Your task to perform on an android device: Search for hotels in San Francisco Image 0: 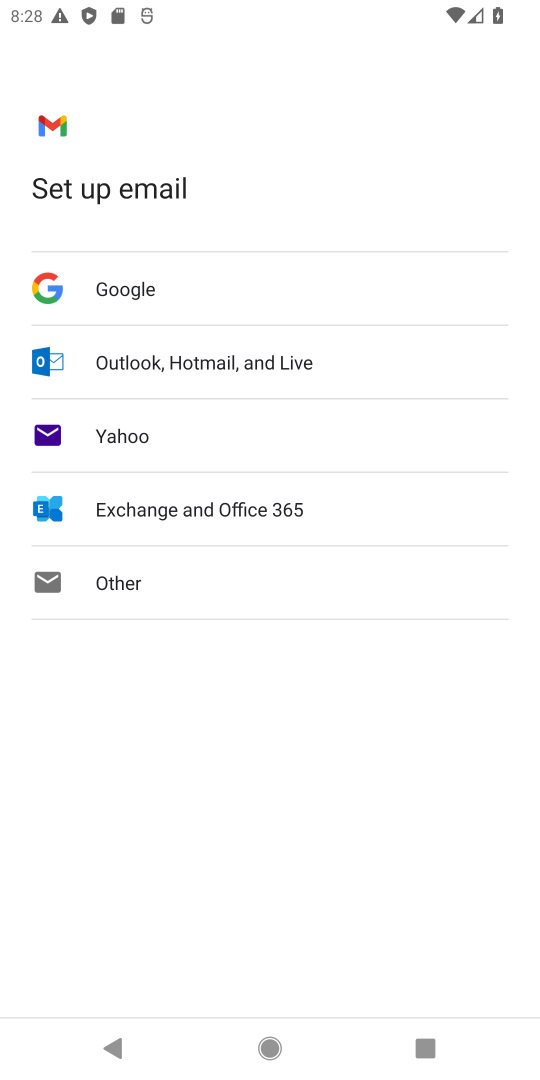
Step 0: press home button
Your task to perform on an android device: Search for hotels in San Francisco Image 1: 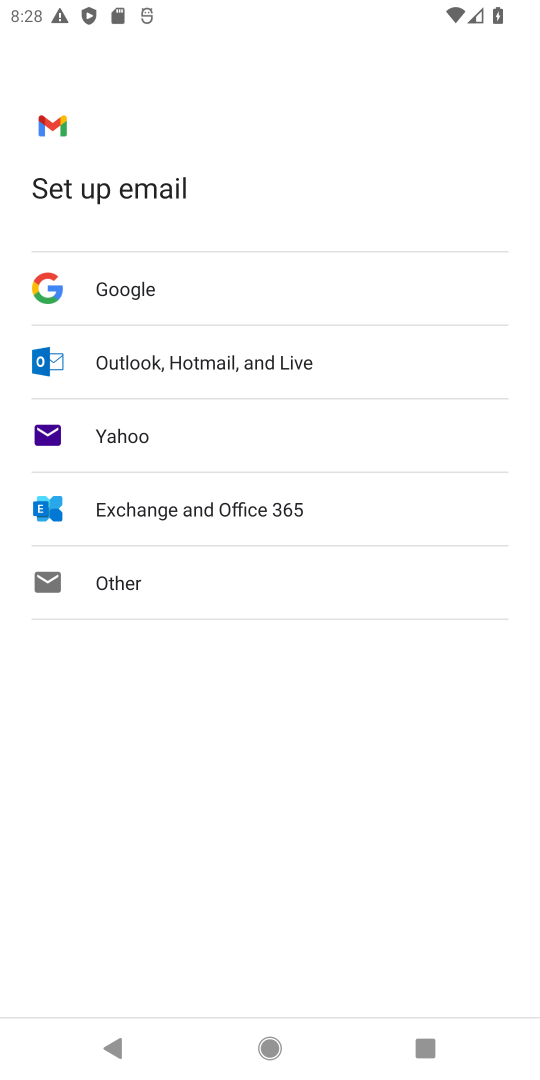
Step 1: press home button
Your task to perform on an android device: Search for hotels in San Francisco Image 2: 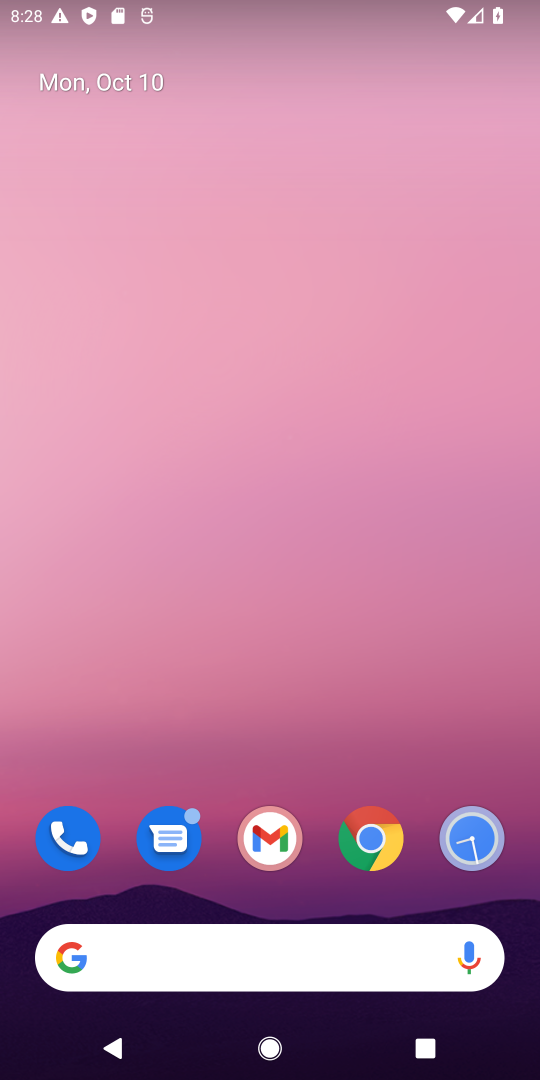
Step 2: drag from (306, 892) to (268, 72)
Your task to perform on an android device: Search for hotels in San Francisco Image 3: 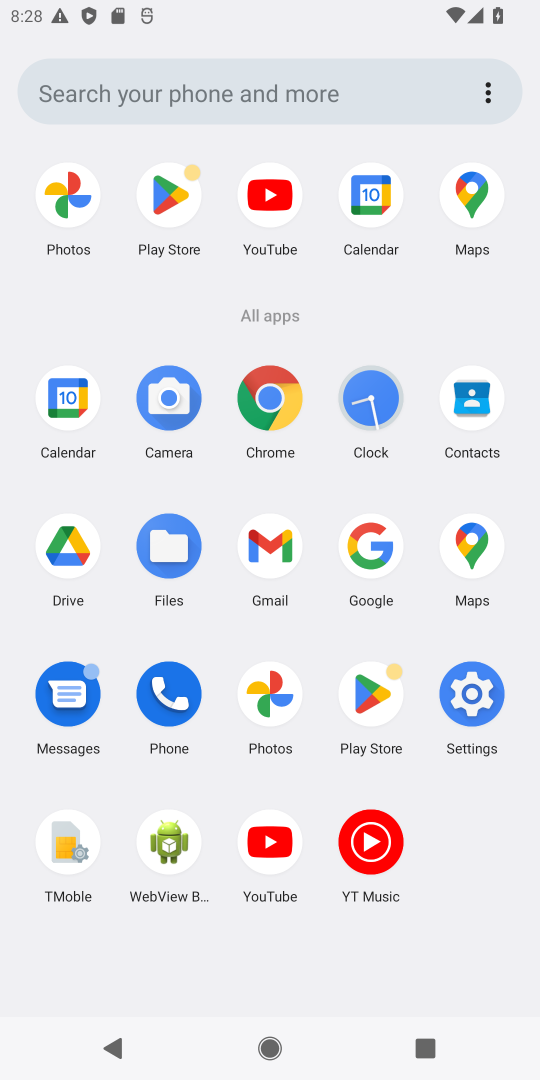
Step 3: click (274, 405)
Your task to perform on an android device: Search for hotels in San Francisco Image 4: 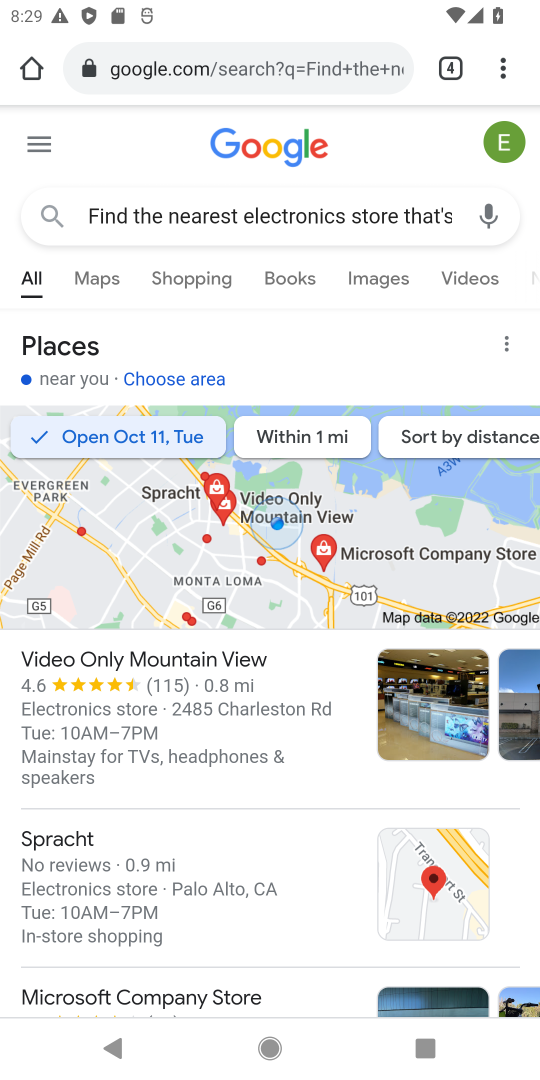
Step 4: click (295, 205)
Your task to perform on an android device: Search for hotels in San Francisco Image 5: 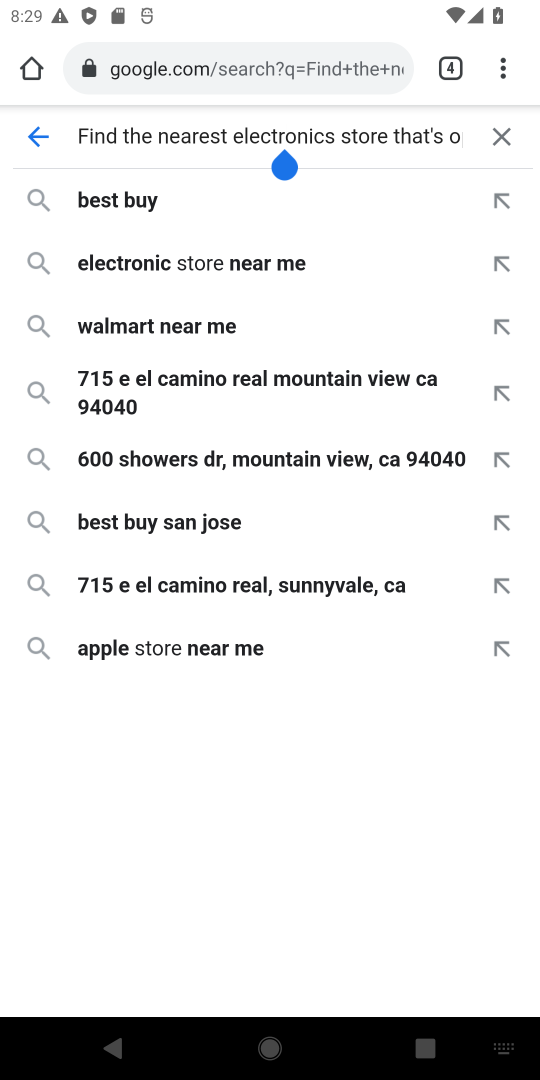
Step 5: click (503, 138)
Your task to perform on an android device: Search for hotels in San Francisco Image 6: 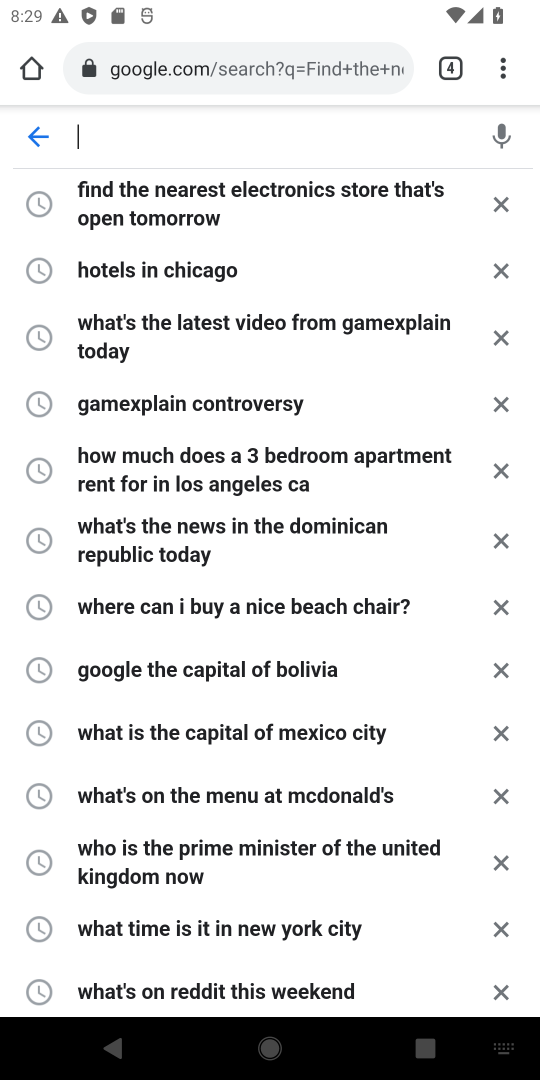
Step 6: type "hotels in San Francisco"
Your task to perform on an android device: Search for hotels in San Francisco Image 7: 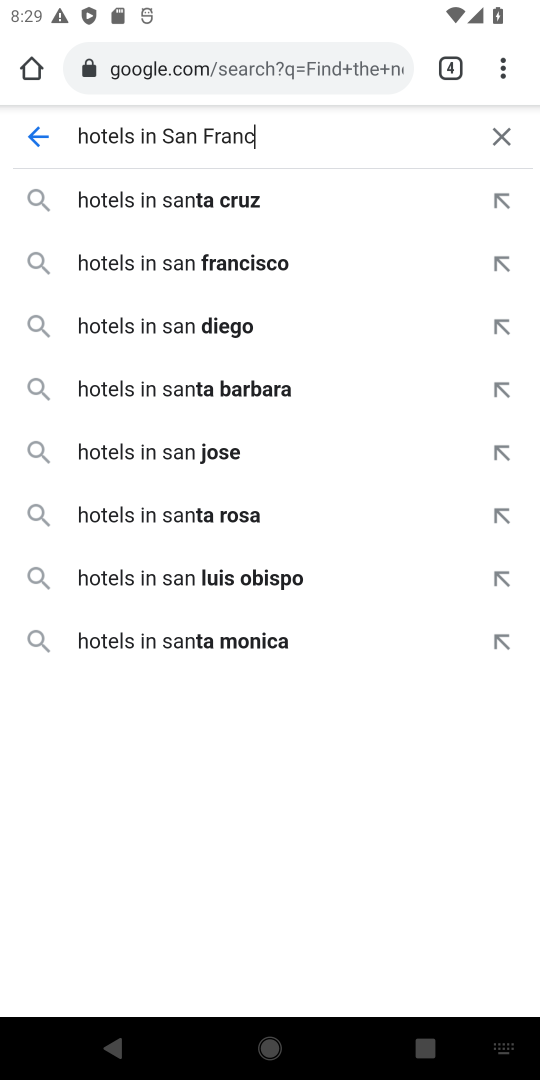
Step 7: type ""
Your task to perform on an android device: Search for hotels in San Francisco Image 8: 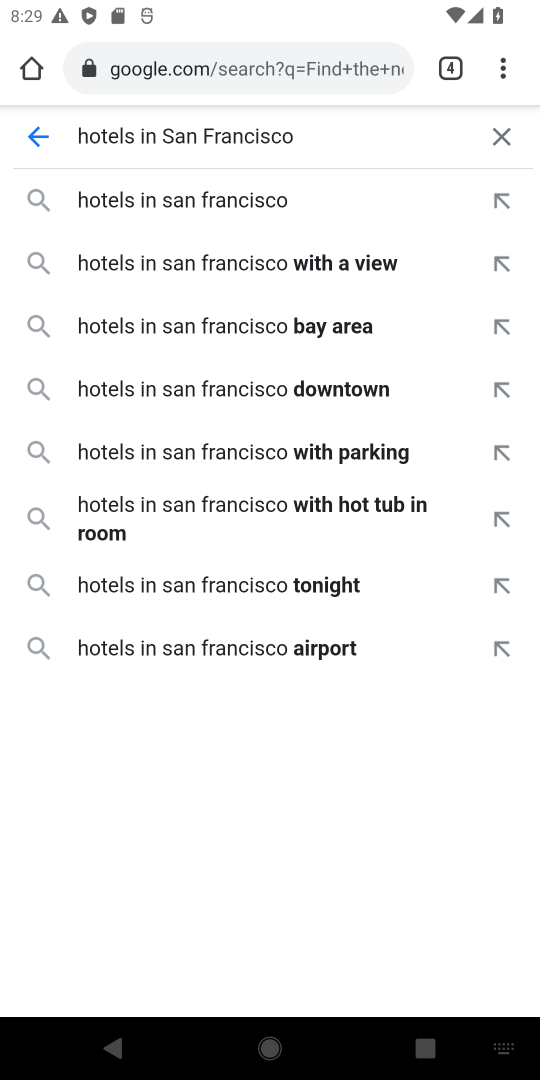
Step 8: click (248, 203)
Your task to perform on an android device: Search for hotels in San Francisco Image 9: 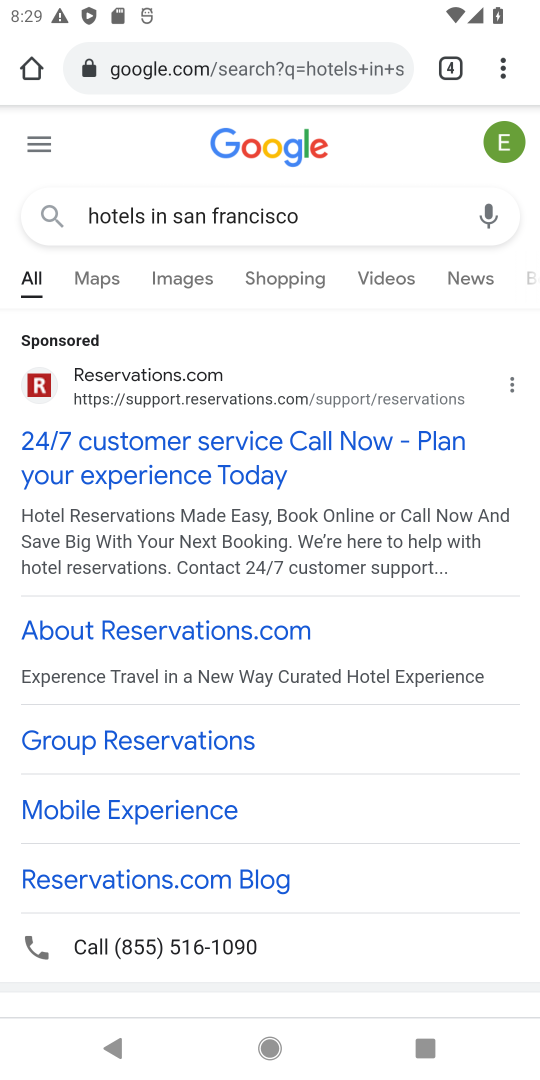
Step 9: task complete